Your task to perform on an android device: change the clock display to digital Image 0: 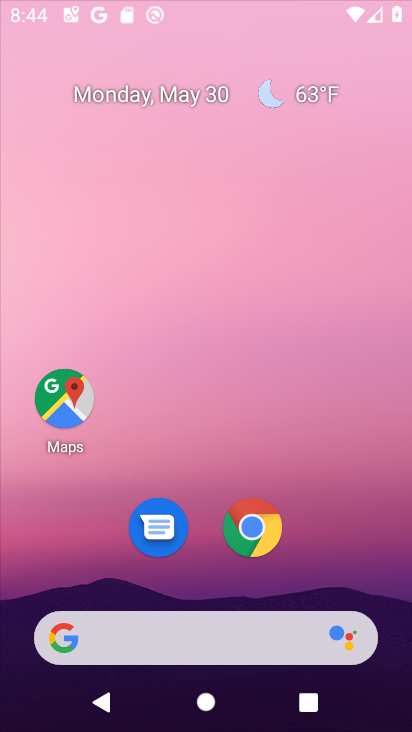
Step 0: click (252, 192)
Your task to perform on an android device: change the clock display to digital Image 1: 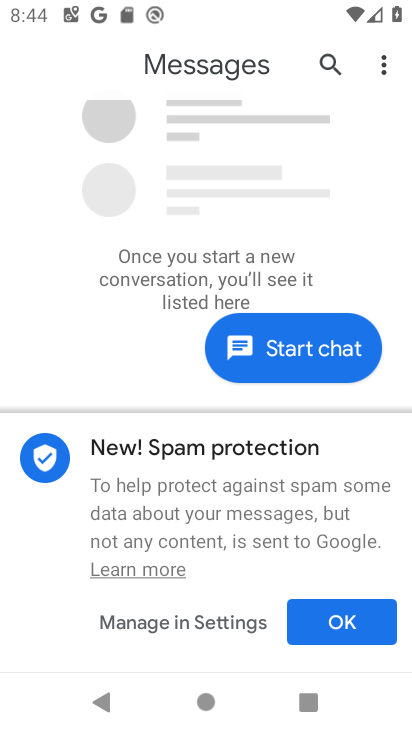
Step 1: press home button
Your task to perform on an android device: change the clock display to digital Image 2: 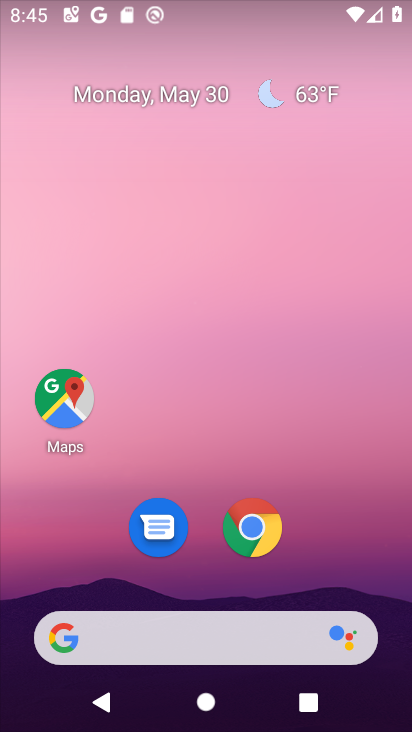
Step 2: drag from (262, 479) to (241, 173)
Your task to perform on an android device: change the clock display to digital Image 3: 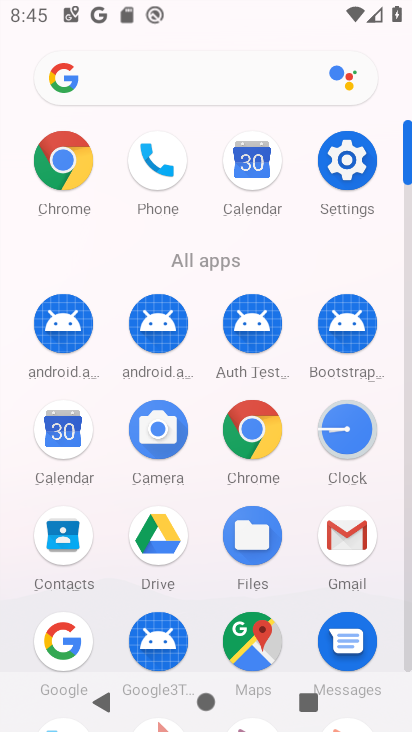
Step 3: click (341, 426)
Your task to perform on an android device: change the clock display to digital Image 4: 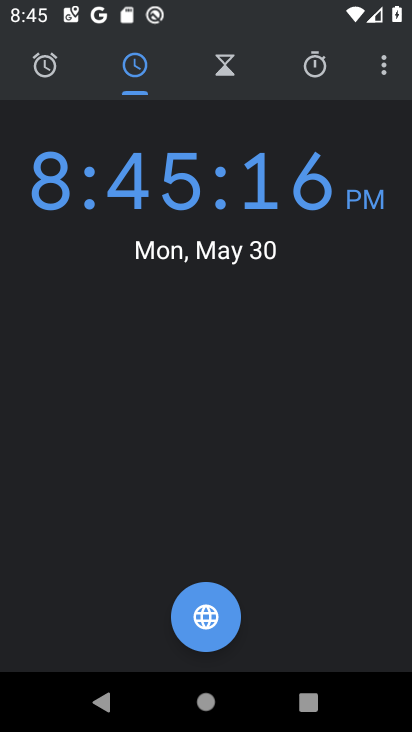
Step 4: click (377, 70)
Your task to perform on an android device: change the clock display to digital Image 5: 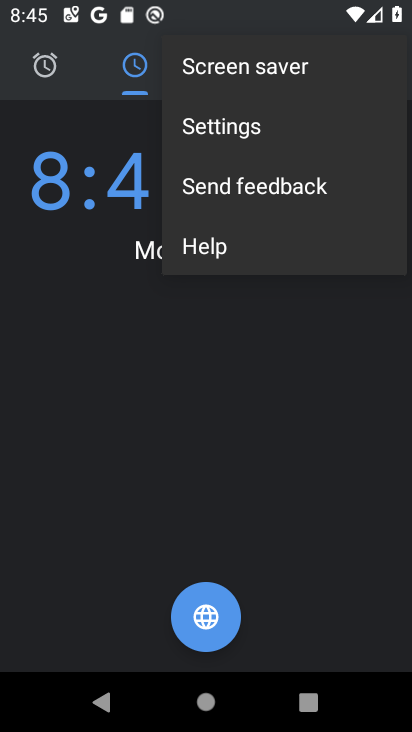
Step 5: click (268, 129)
Your task to perform on an android device: change the clock display to digital Image 6: 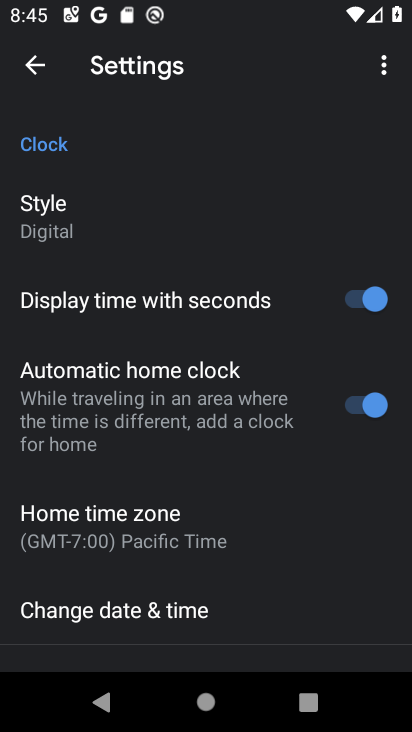
Step 6: drag from (166, 480) to (157, 356)
Your task to perform on an android device: change the clock display to digital Image 7: 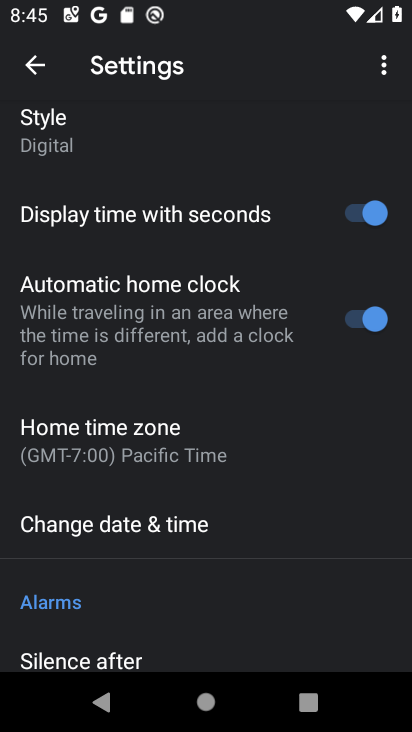
Step 7: click (70, 121)
Your task to perform on an android device: change the clock display to digital Image 8: 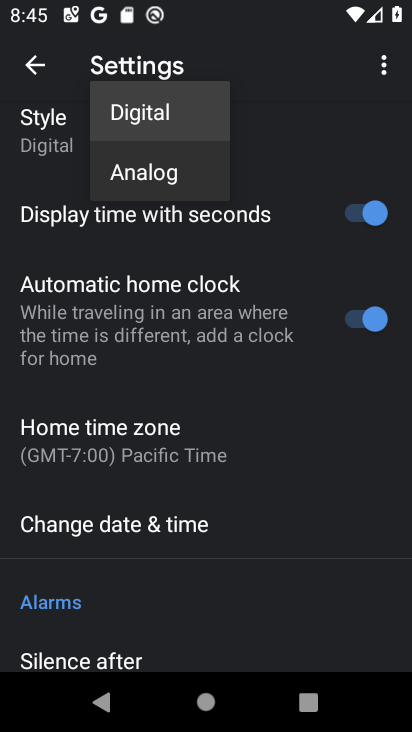
Step 8: click (154, 182)
Your task to perform on an android device: change the clock display to digital Image 9: 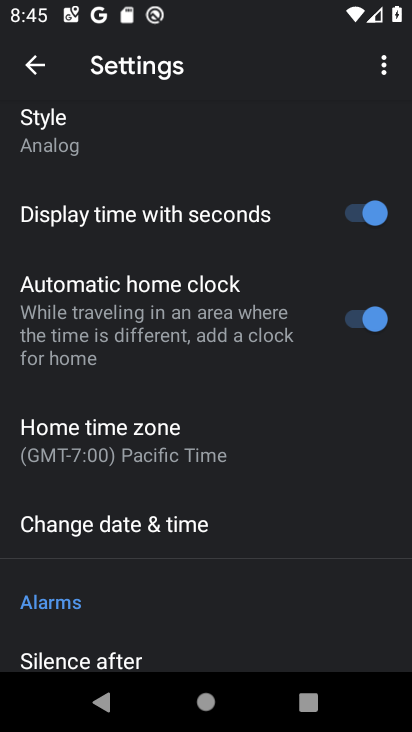
Step 9: task complete